Your task to perform on an android device: turn notification dots on Image 0: 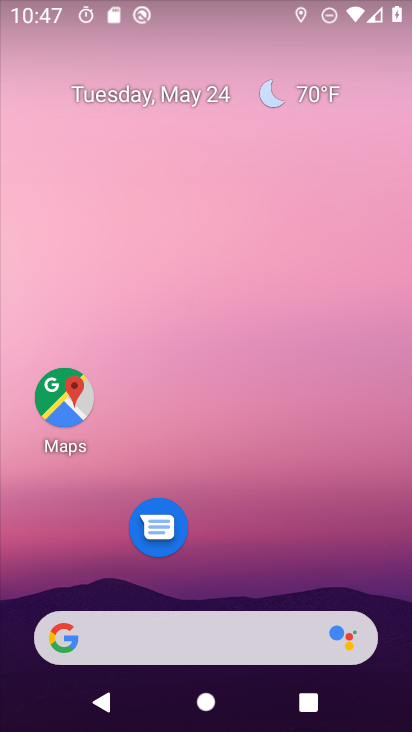
Step 0: drag from (226, 572) to (221, 122)
Your task to perform on an android device: turn notification dots on Image 1: 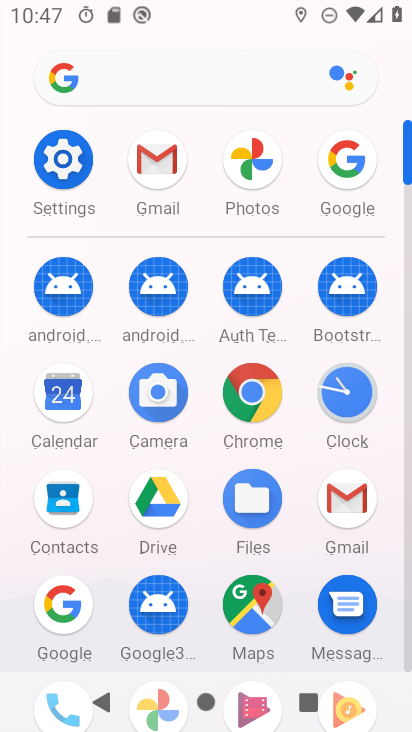
Step 1: click (62, 160)
Your task to perform on an android device: turn notification dots on Image 2: 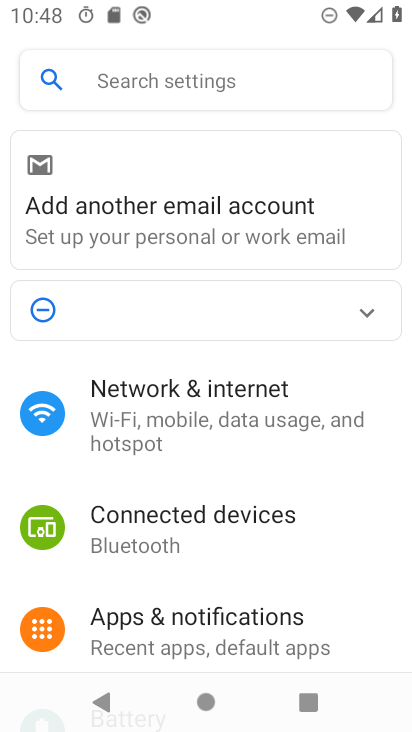
Step 2: click (185, 614)
Your task to perform on an android device: turn notification dots on Image 3: 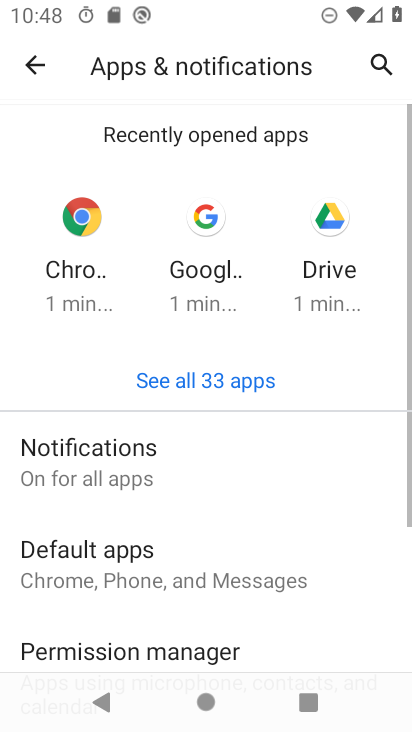
Step 3: drag from (247, 530) to (265, 290)
Your task to perform on an android device: turn notification dots on Image 4: 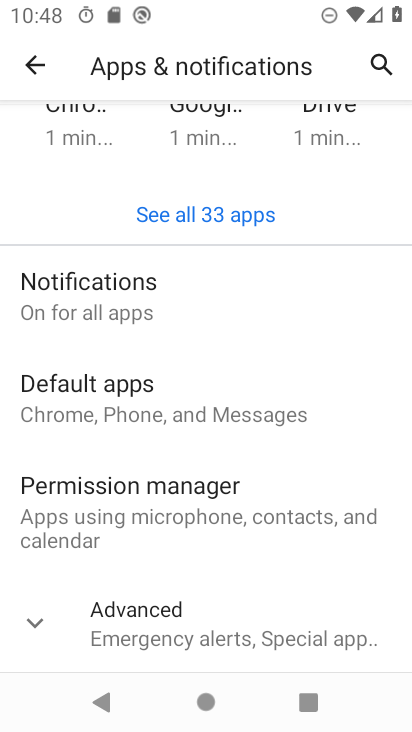
Step 4: click (213, 626)
Your task to perform on an android device: turn notification dots on Image 5: 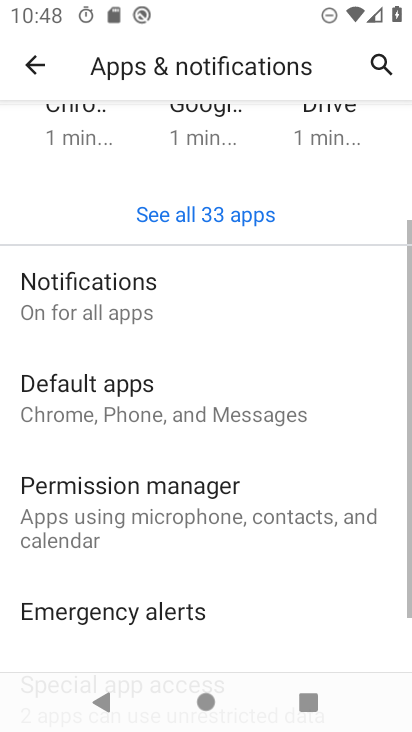
Step 5: click (146, 289)
Your task to perform on an android device: turn notification dots on Image 6: 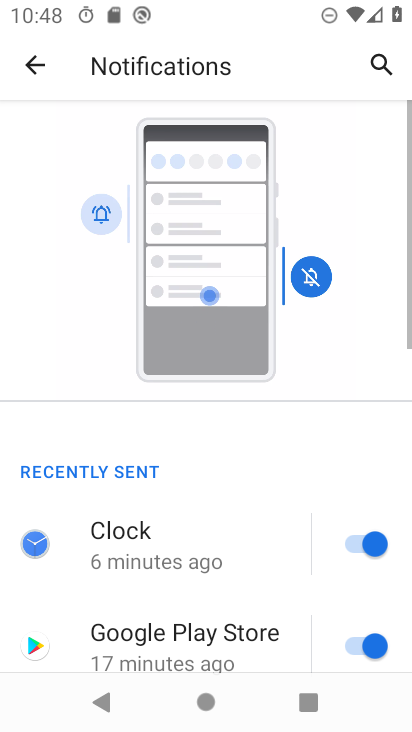
Step 6: drag from (244, 611) to (261, 69)
Your task to perform on an android device: turn notification dots on Image 7: 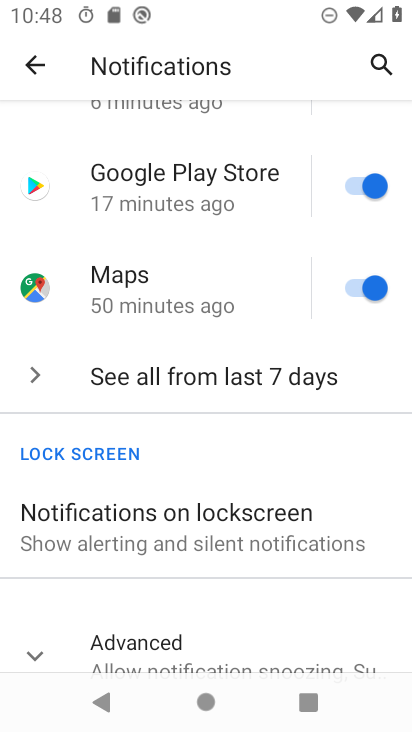
Step 7: drag from (294, 587) to (290, 213)
Your task to perform on an android device: turn notification dots on Image 8: 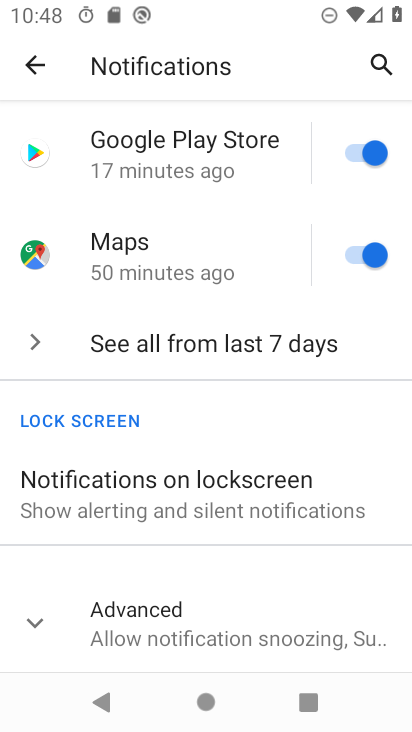
Step 8: click (128, 632)
Your task to perform on an android device: turn notification dots on Image 9: 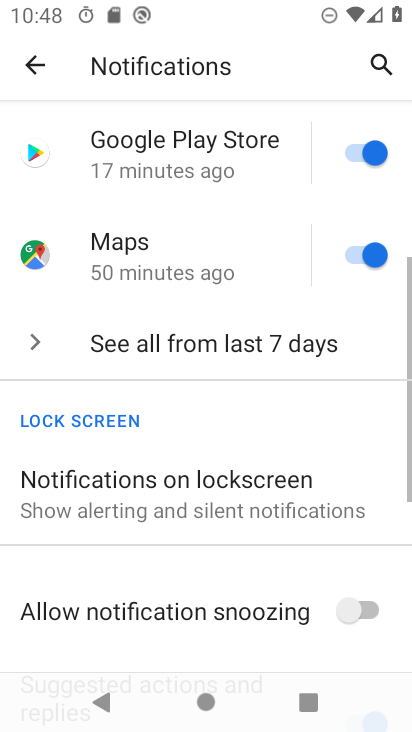
Step 9: task complete